Your task to perform on an android device: toggle data saver in the chrome app Image 0: 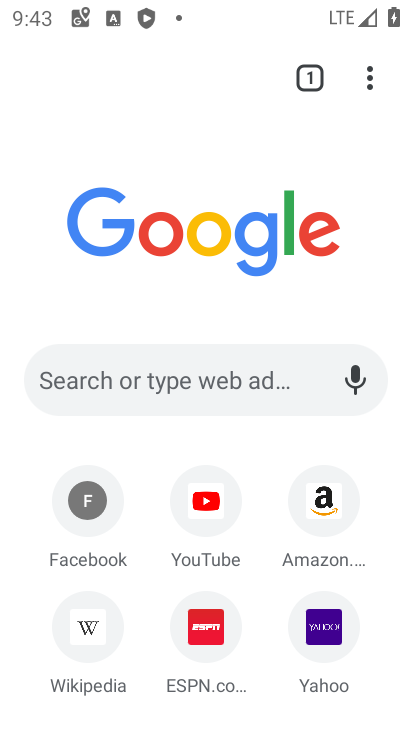
Step 0: press home button
Your task to perform on an android device: toggle data saver in the chrome app Image 1: 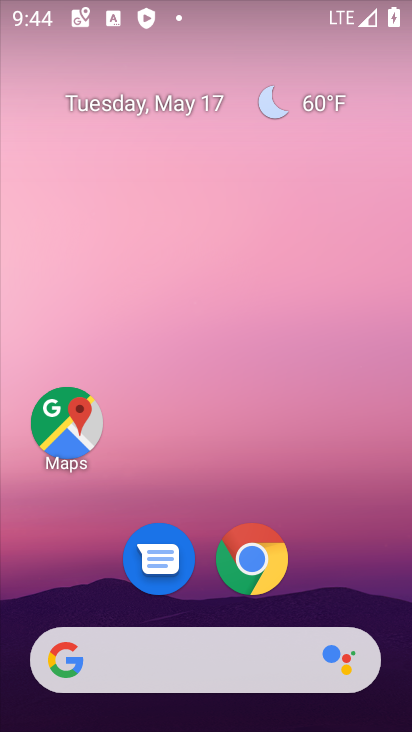
Step 1: click (265, 537)
Your task to perform on an android device: toggle data saver in the chrome app Image 2: 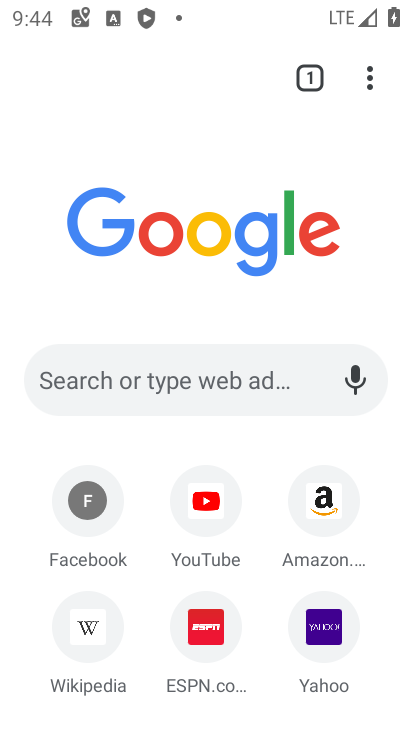
Step 2: drag from (368, 74) to (122, 606)
Your task to perform on an android device: toggle data saver in the chrome app Image 3: 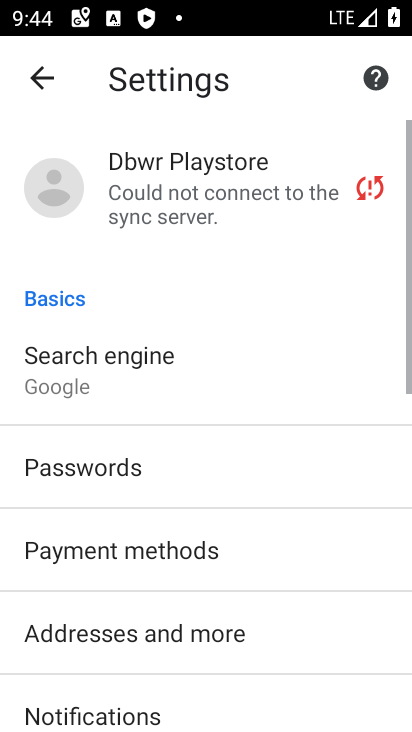
Step 3: drag from (143, 640) to (157, 197)
Your task to perform on an android device: toggle data saver in the chrome app Image 4: 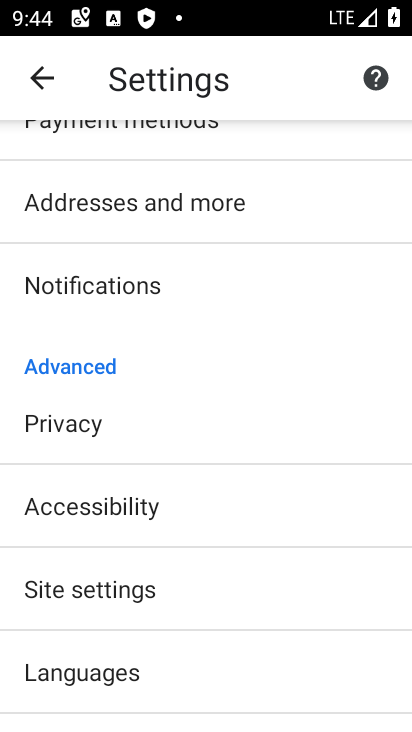
Step 4: drag from (215, 648) to (258, 451)
Your task to perform on an android device: toggle data saver in the chrome app Image 5: 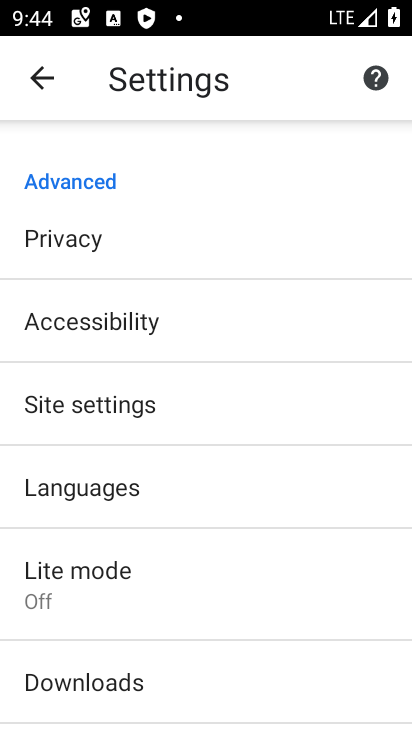
Step 5: click (84, 556)
Your task to perform on an android device: toggle data saver in the chrome app Image 6: 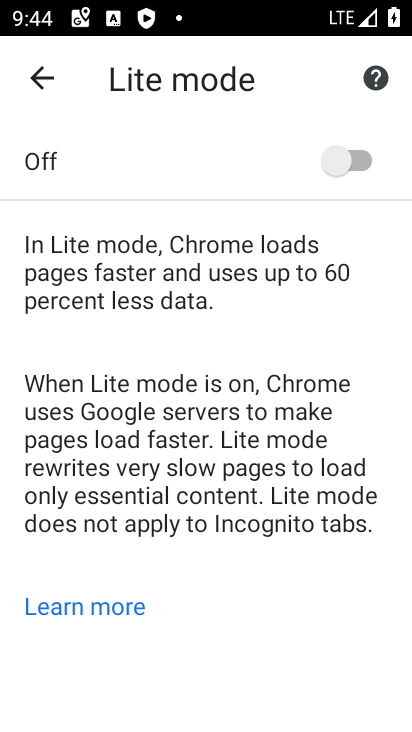
Step 6: click (352, 162)
Your task to perform on an android device: toggle data saver in the chrome app Image 7: 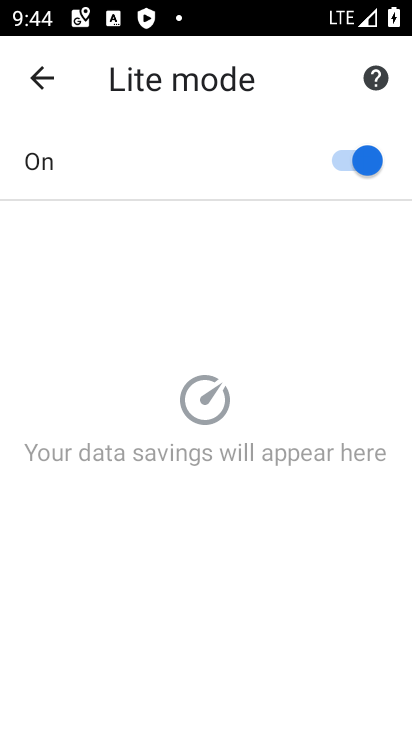
Step 7: task complete